Your task to perform on an android device: turn off translation in the chrome app Image 0: 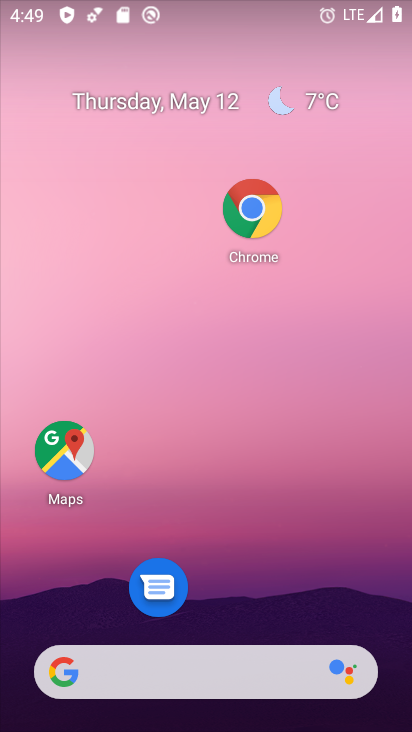
Step 0: drag from (253, 364) to (276, 113)
Your task to perform on an android device: turn off translation in the chrome app Image 1: 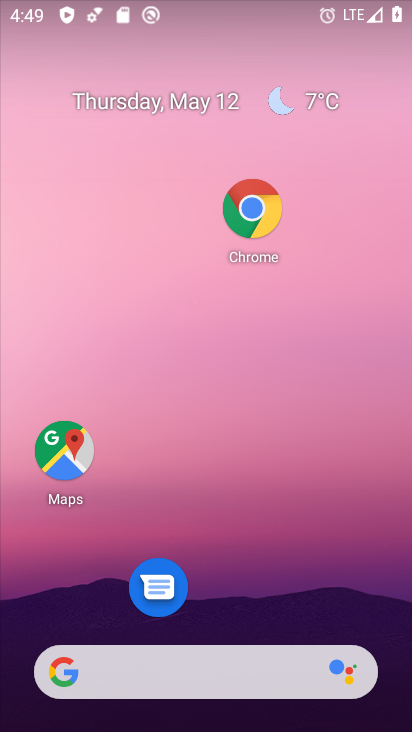
Step 1: drag from (268, 582) to (246, 0)
Your task to perform on an android device: turn off translation in the chrome app Image 2: 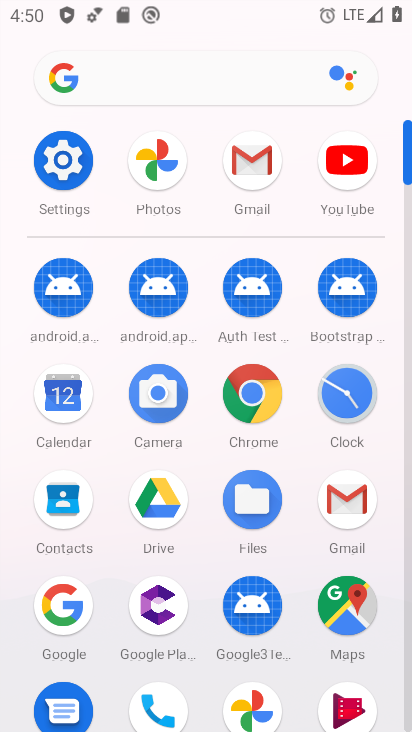
Step 2: drag from (215, 633) to (281, 175)
Your task to perform on an android device: turn off translation in the chrome app Image 3: 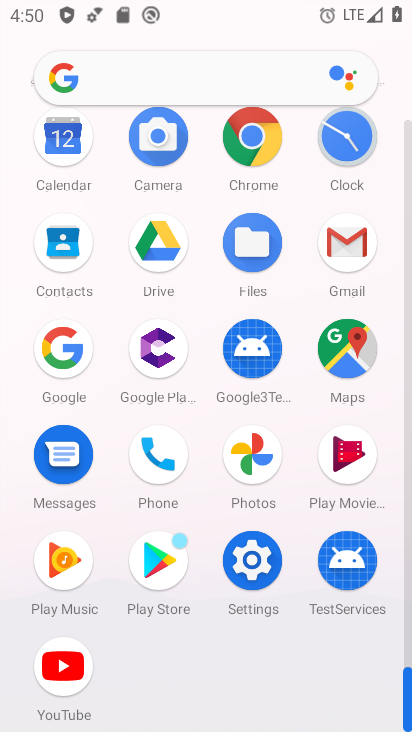
Step 3: click (237, 182)
Your task to perform on an android device: turn off translation in the chrome app Image 4: 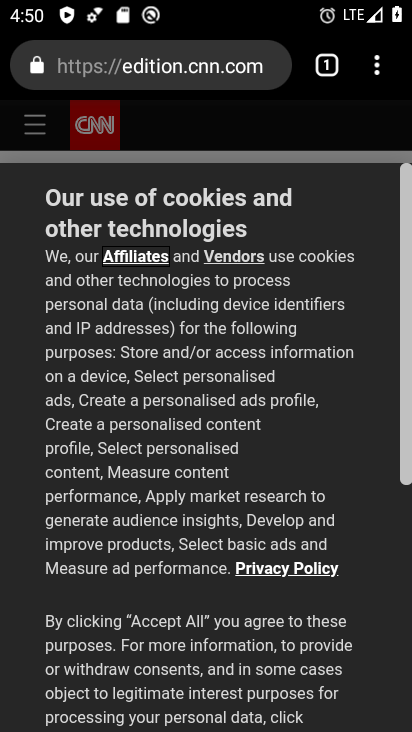
Step 4: click (375, 58)
Your task to perform on an android device: turn off translation in the chrome app Image 5: 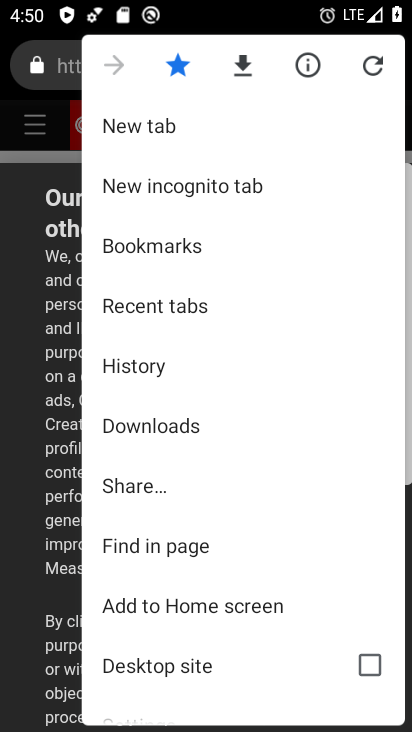
Step 5: drag from (187, 588) to (211, 240)
Your task to perform on an android device: turn off translation in the chrome app Image 6: 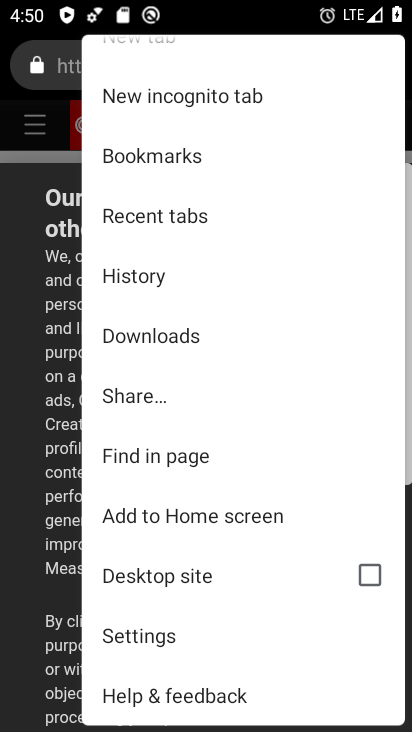
Step 6: click (146, 641)
Your task to perform on an android device: turn off translation in the chrome app Image 7: 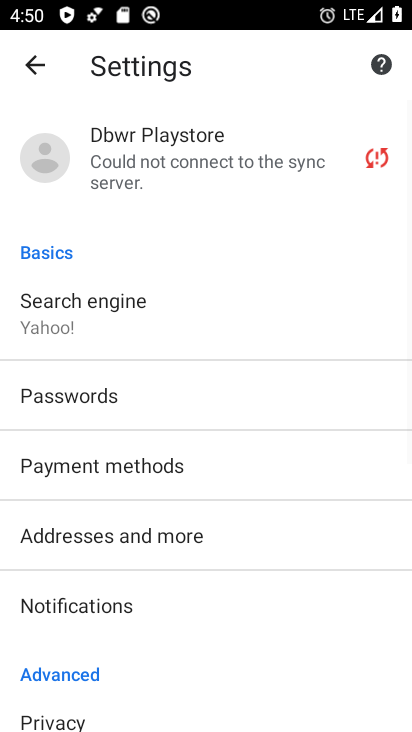
Step 7: drag from (146, 637) to (157, 331)
Your task to perform on an android device: turn off translation in the chrome app Image 8: 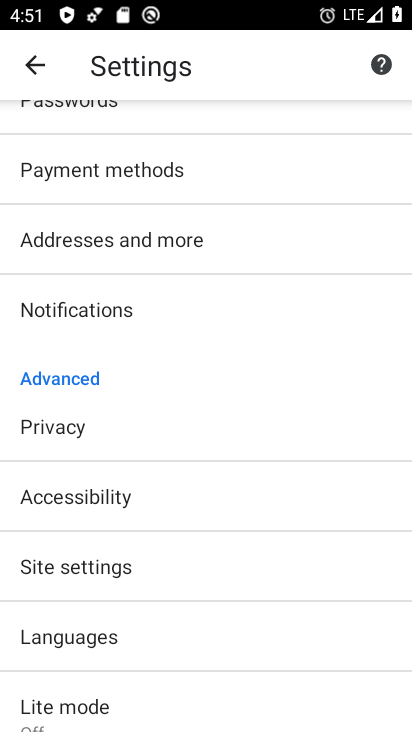
Step 8: click (88, 635)
Your task to perform on an android device: turn off translation in the chrome app Image 9: 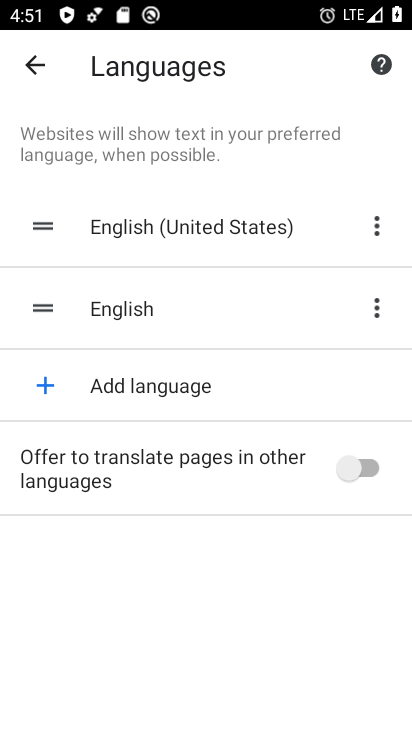
Step 9: task complete